Your task to perform on an android device: turn off airplane mode Image 0: 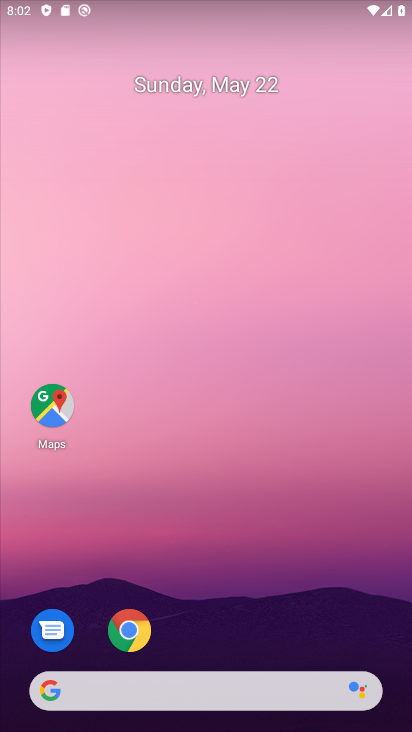
Step 0: drag from (238, 610) to (234, 129)
Your task to perform on an android device: turn off airplane mode Image 1: 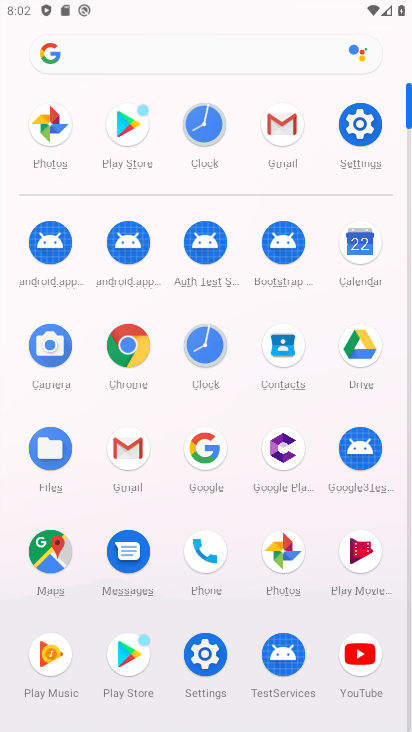
Step 1: click (354, 135)
Your task to perform on an android device: turn off airplane mode Image 2: 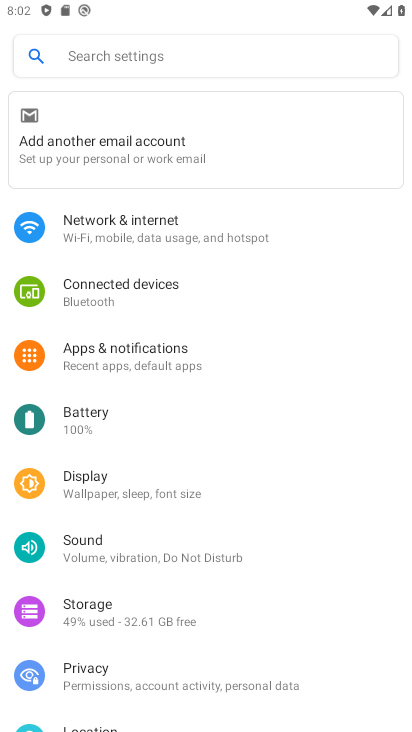
Step 2: click (189, 241)
Your task to perform on an android device: turn off airplane mode Image 3: 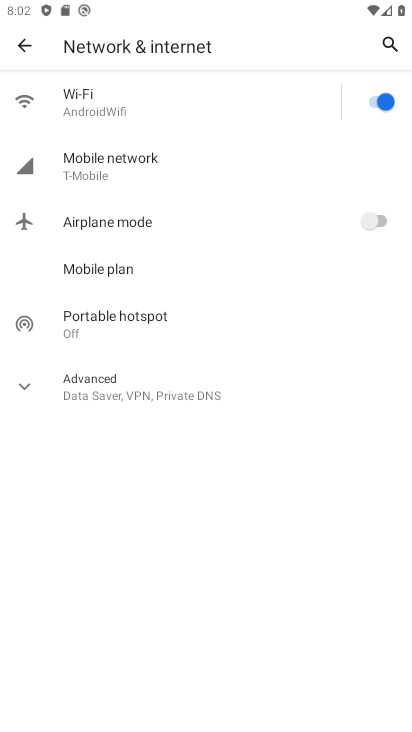
Step 3: click (363, 231)
Your task to perform on an android device: turn off airplane mode Image 4: 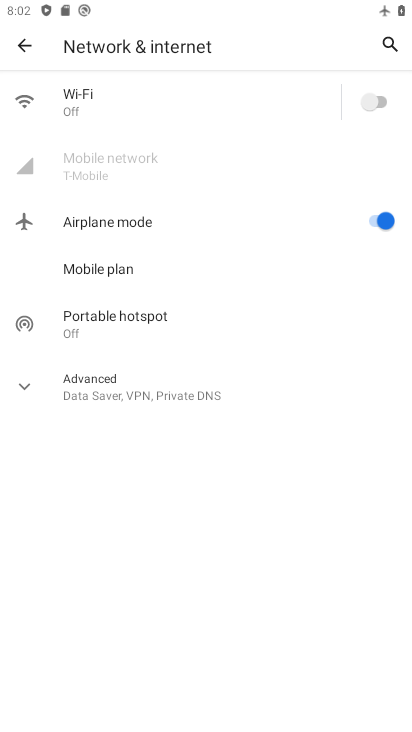
Step 4: click (363, 231)
Your task to perform on an android device: turn off airplane mode Image 5: 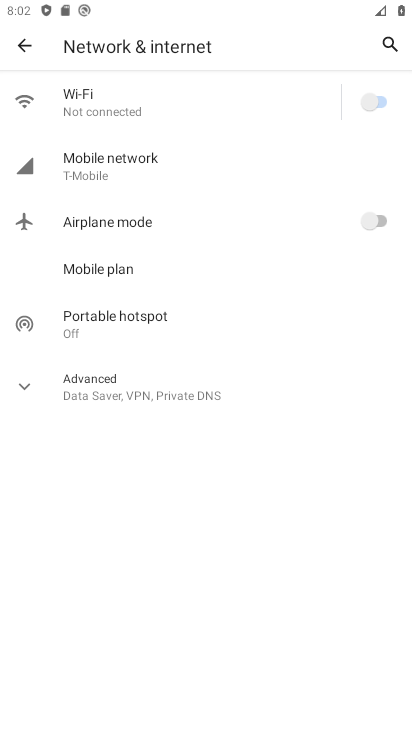
Step 5: task complete